Your task to perform on an android device: Search for the ikea billy bookcase Image 0: 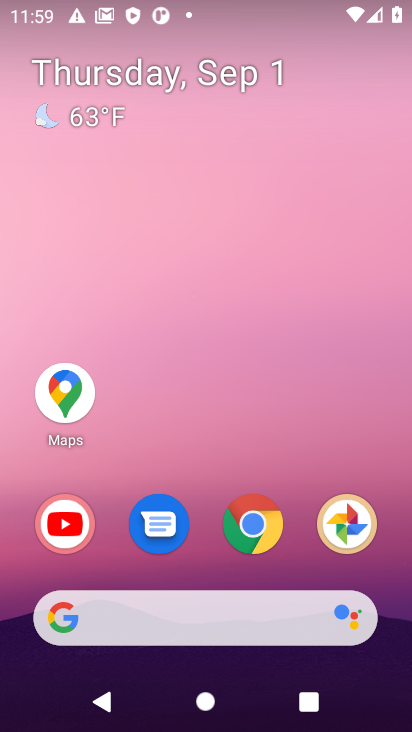
Step 0: click (249, 532)
Your task to perform on an android device: Search for the ikea billy bookcase Image 1: 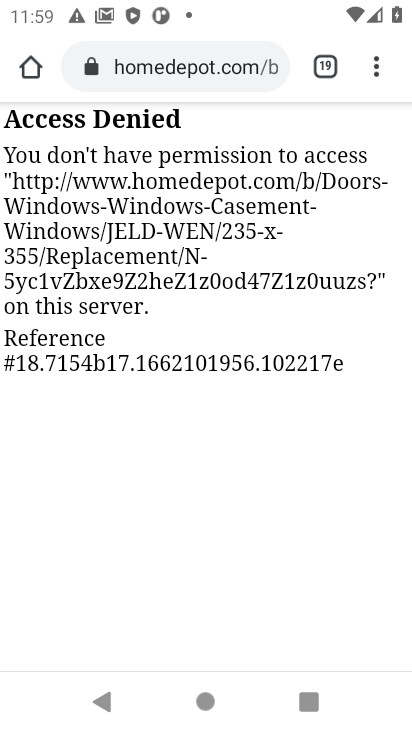
Step 1: click (326, 63)
Your task to perform on an android device: Search for the ikea billy bookcase Image 2: 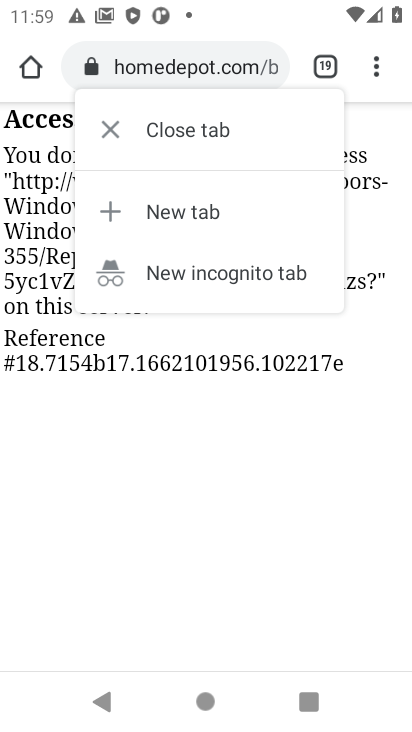
Step 2: click (326, 67)
Your task to perform on an android device: Search for the ikea billy bookcase Image 3: 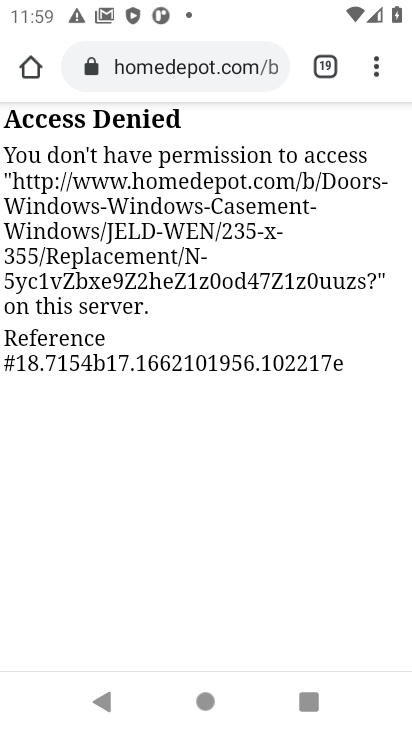
Step 3: click (326, 67)
Your task to perform on an android device: Search for the ikea billy bookcase Image 4: 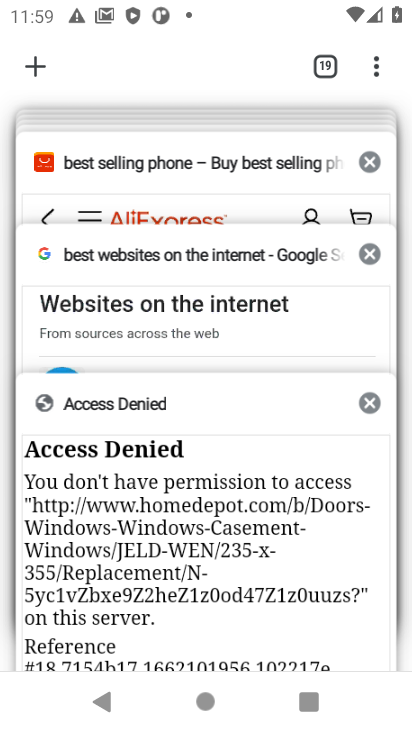
Step 4: drag from (215, 173) to (236, 592)
Your task to perform on an android device: Search for the ikea billy bookcase Image 5: 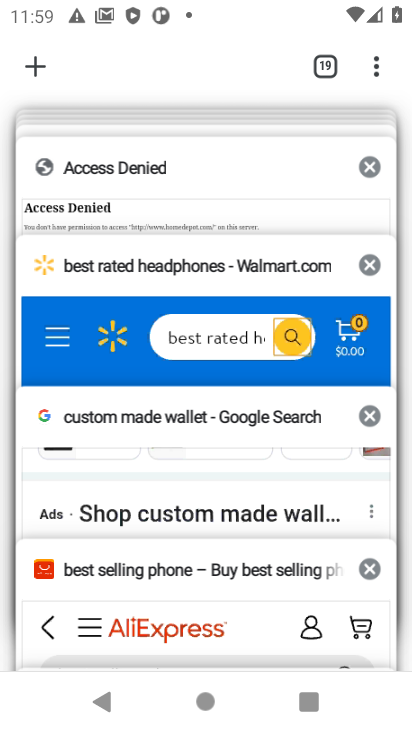
Step 5: drag from (216, 163) to (236, 427)
Your task to perform on an android device: Search for the ikea billy bookcase Image 6: 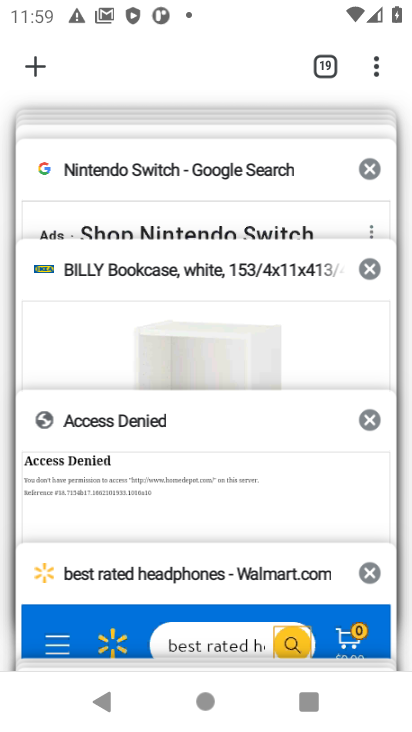
Step 6: click (172, 307)
Your task to perform on an android device: Search for the ikea billy bookcase Image 7: 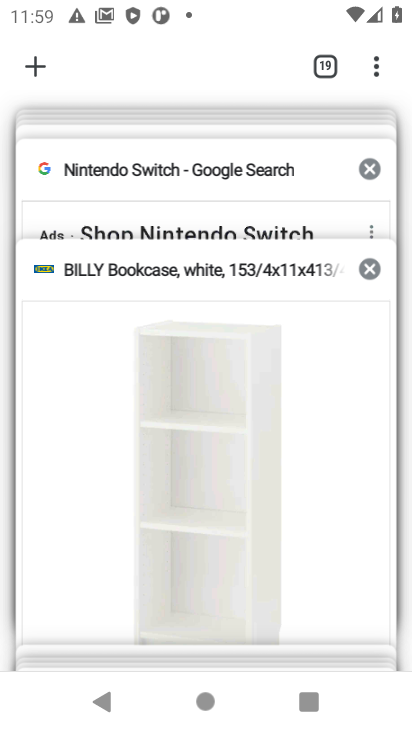
Step 7: click (172, 307)
Your task to perform on an android device: Search for the ikea billy bookcase Image 8: 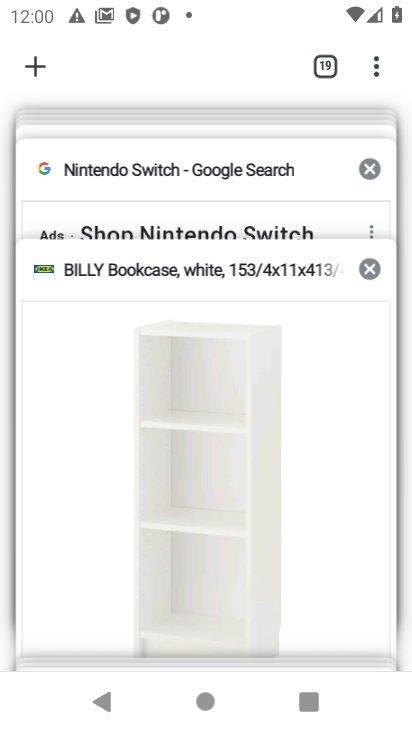
Step 8: click (199, 275)
Your task to perform on an android device: Search for the ikea billy bookcase Image 9: 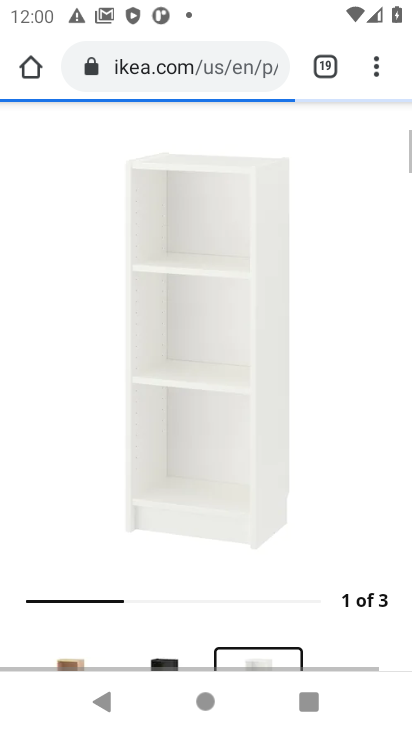
Step 9: task complete